Your task to perform on an android device: Go to CNN.com Image 0: 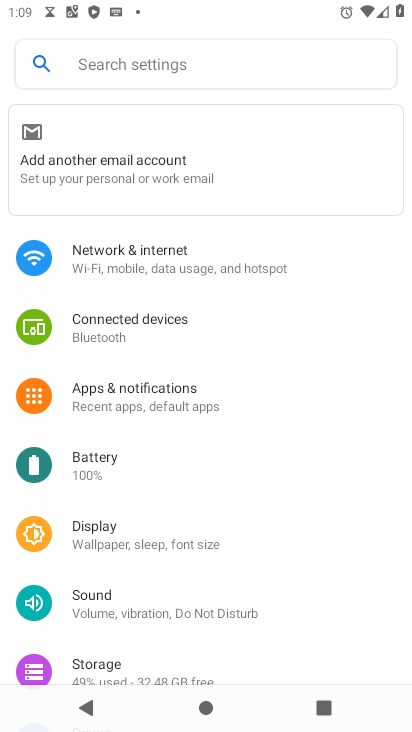
Step 0: press home button
Your task to perform on an android device: Go to CNN.com Image 1: 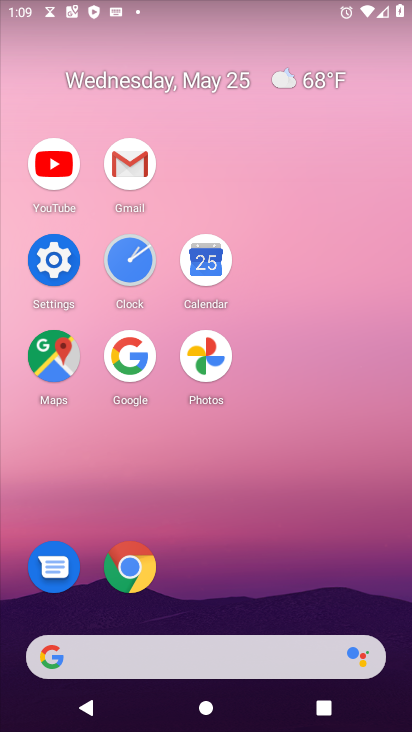
Step 1: click (150, 558)
Your task to perform on an android device: Go to CNN.com Image 2: 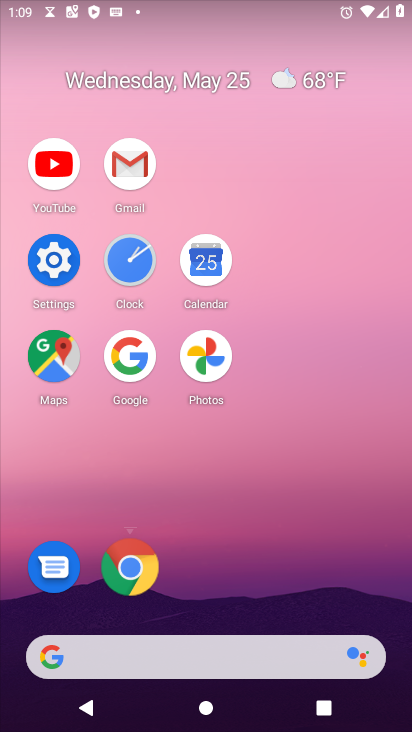
Step 2: click (149, 581)
Your task to perform on an android device: Go to CNN.com Image 3: 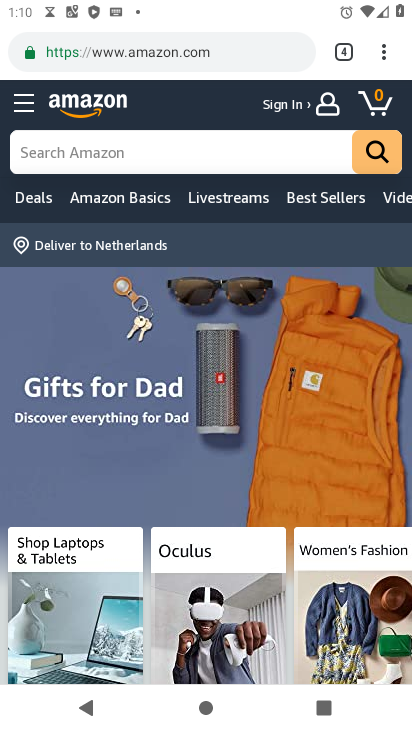
Step 3: click (343, 50)
Your task to perform on an android device: Go to CNN.com Image 4: 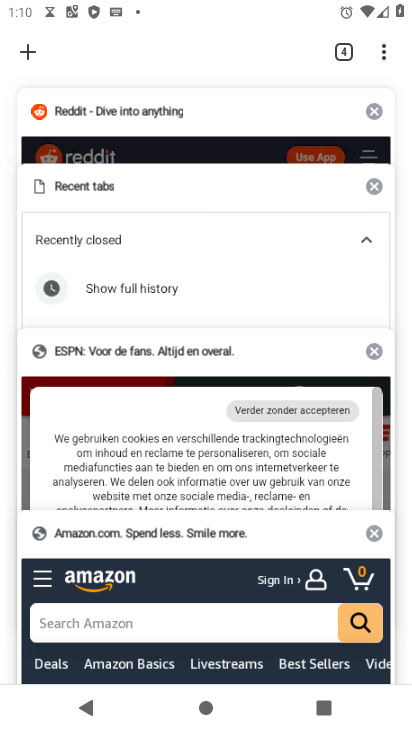
Step 4: click (28, 50)
Your task to perform on an android device: Go to CNN.com Image 5: 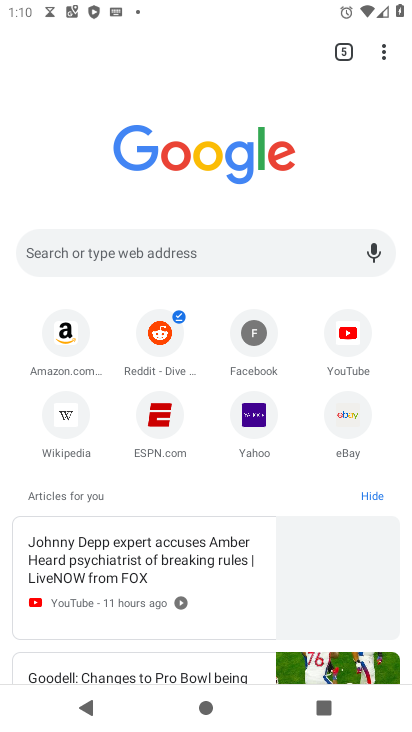
Step 5: click (198, 237)
Your task to perform on an android device: Go to CNN.com Image 6: 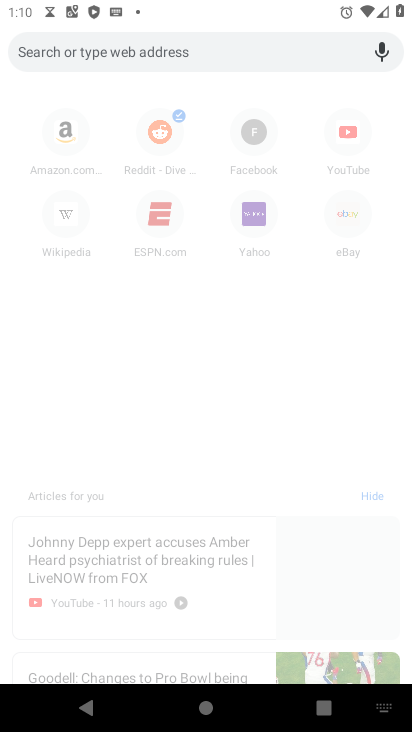
Step 6: type "cnn"
Your task to perform on an android device: Go to CNN.com Image 7: 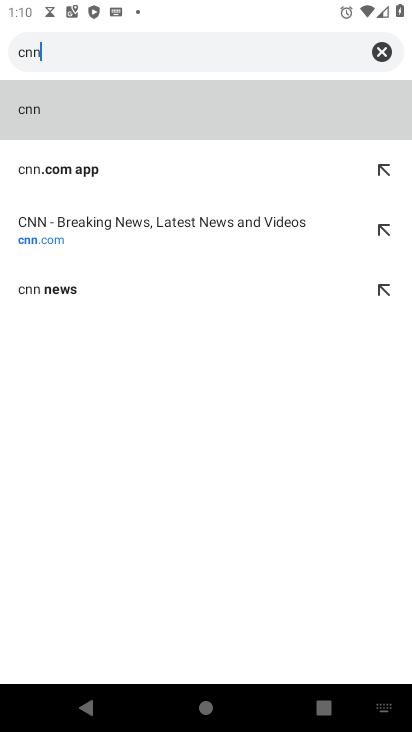
Step 7: click (142, 225)
Your task to perform on an android device: Go to CNN.com Image 8: 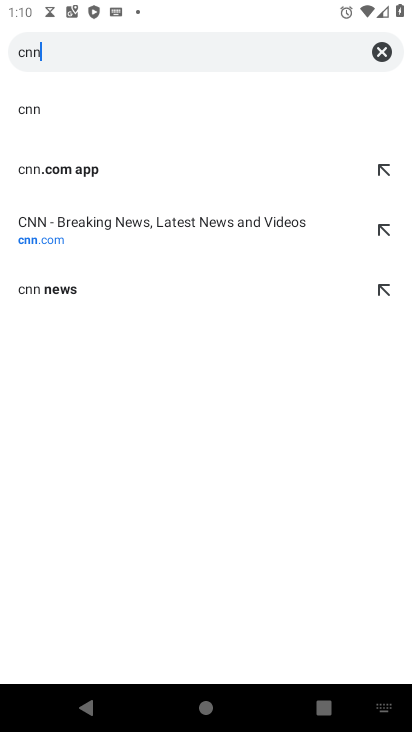
Step 8: click (58, 237)
Your task to perform on an android device: Go to CNN.com Image 9: 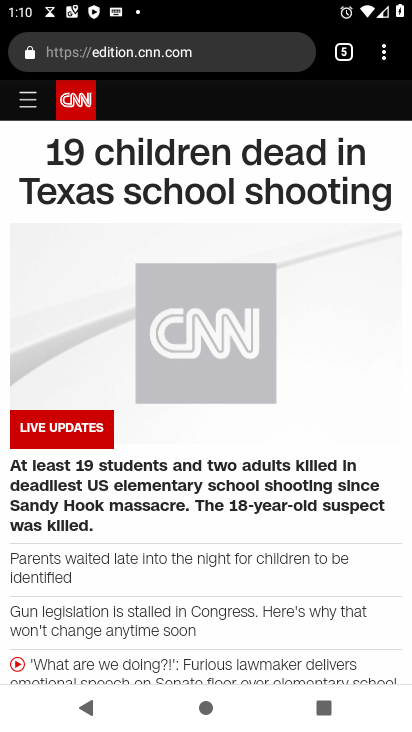
Step 9: task complete